Your task to perform on an android device: Open Google Maps Image 0: 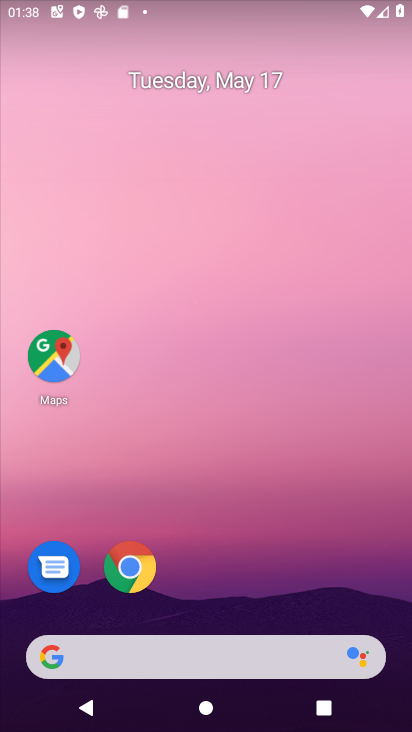
Step 0: click (52, 357)
Your task to perform on an android device: Open Google Maps Image 1: 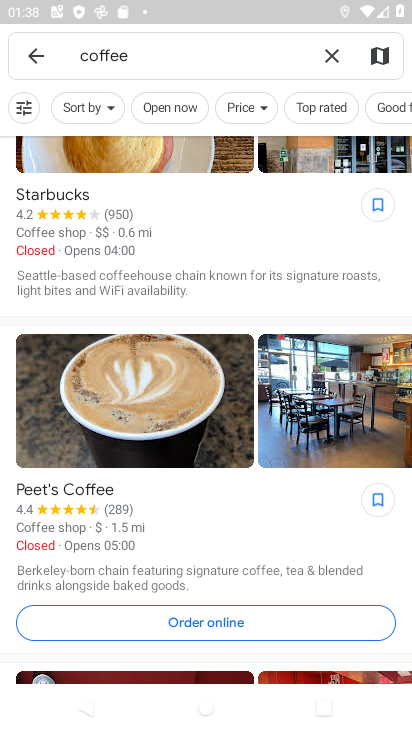
Step 1: click (336, 50)
Your task to perform on an android device: Open Google Maps Image 2: 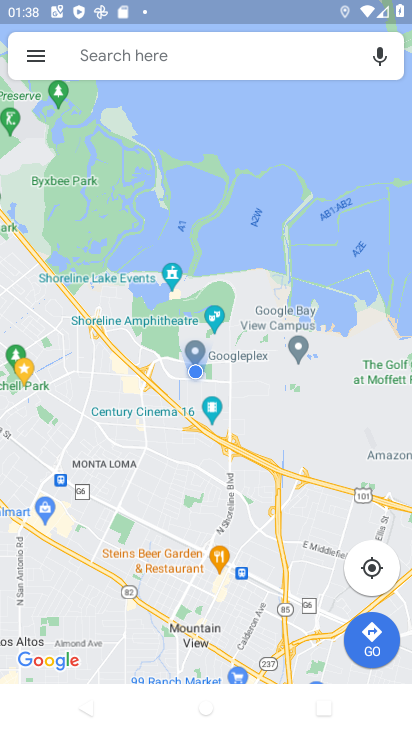
Step 2: task complete